Your task to perform on an android device: Go to wifi settings Image 0: 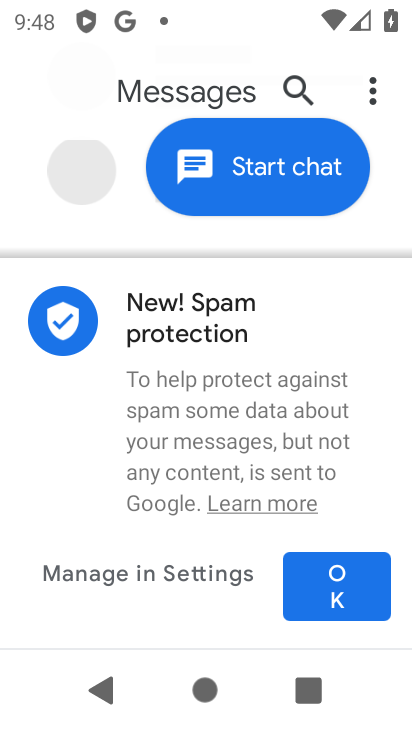
Step 0: press back button
Your task to perform on an android device: Go to wifi settings Image 1: 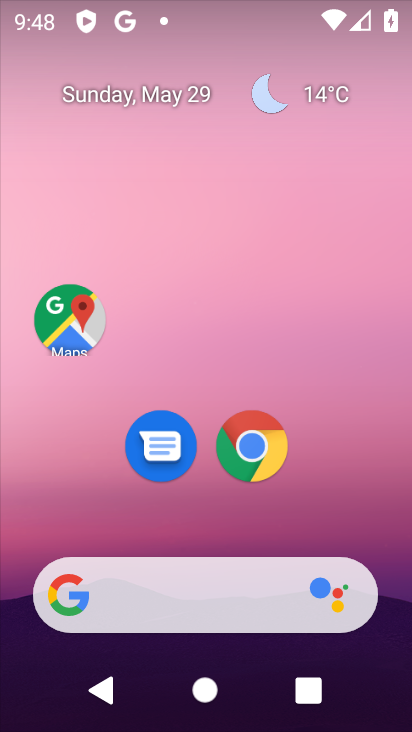
Step 1: drag from (353, 522) to (215, 1)
Your task to perform on an android device: Go to wifi settings Image 2: 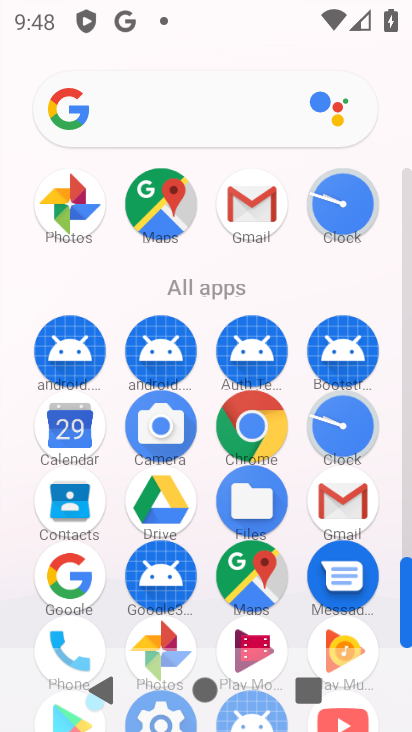
Step 2: drag from (17, 521) to (6, 186)
Your task to perform on an android device: Go to wifi settings Image 3: 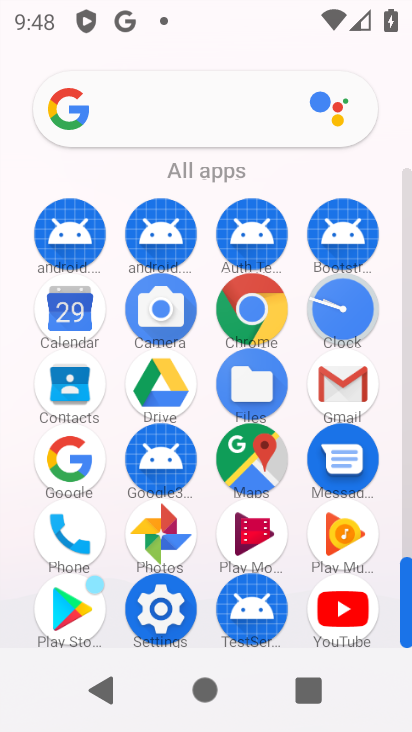
Step 3: click (158, 606)
Your task to perform on an android device: Go to wifi settings Image 4: 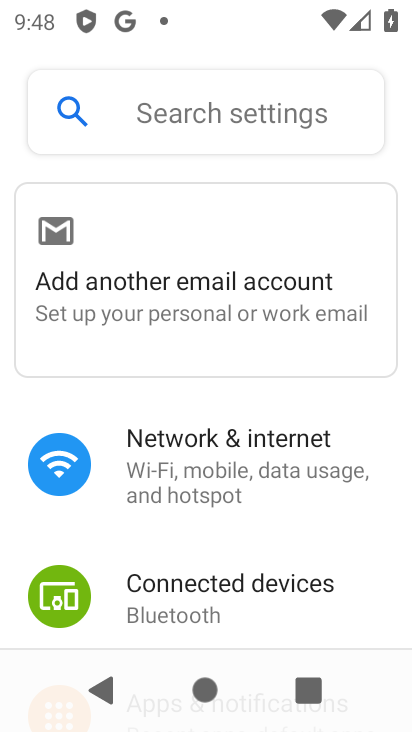
Step 4: click (224, 457)
Your task to perform on an android device: Go to wifi settings Image 5: 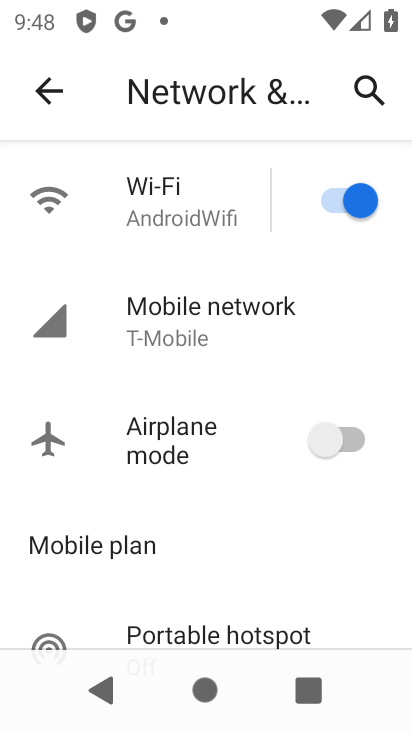
Step 5: click (175, 193)
Your task to perform on an android device: Go to wifi settings Image 6: 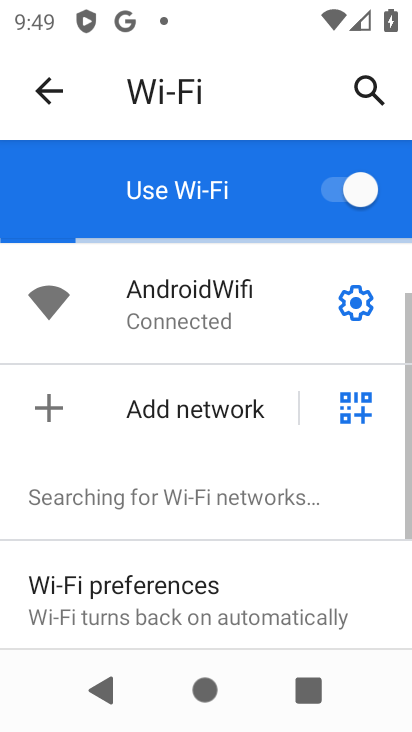
Step 6: task complete